Your task to perform on an android device: set the stopwatch Image 0: 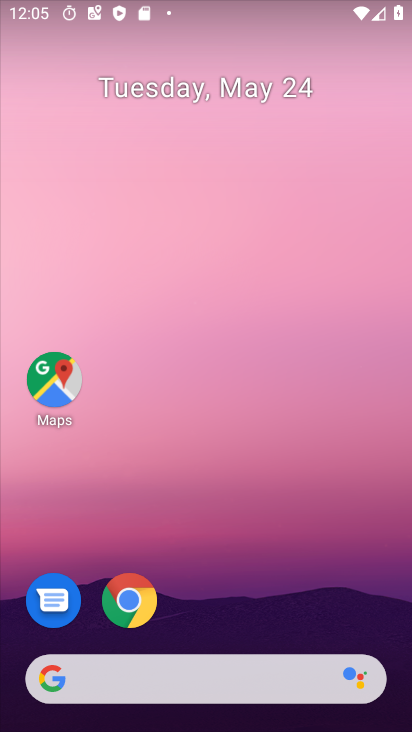
Step 0: drag from (275, 238) to (291, 128)
Your task to perform on an android device: set the stopwatch Image 1: 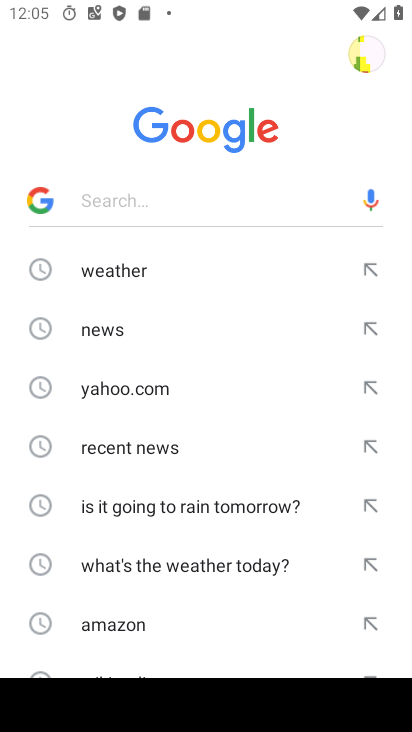
Step 1: press home button
Your task to perform on an android device: set the stopwatch Image 2: 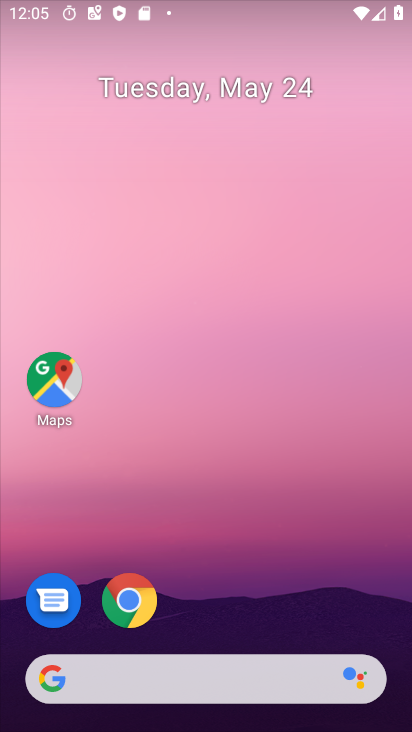
Step 2: drag from (290, 562) to (287, 202)
Your task to perform on an android device: set the stopwatch Image 3: 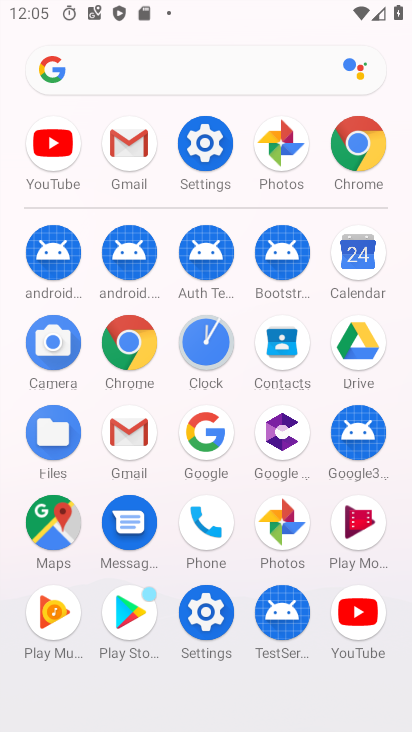
Step 3: click (193, 355)
Your task to perform on an android device: set the stopwatch Image 4: 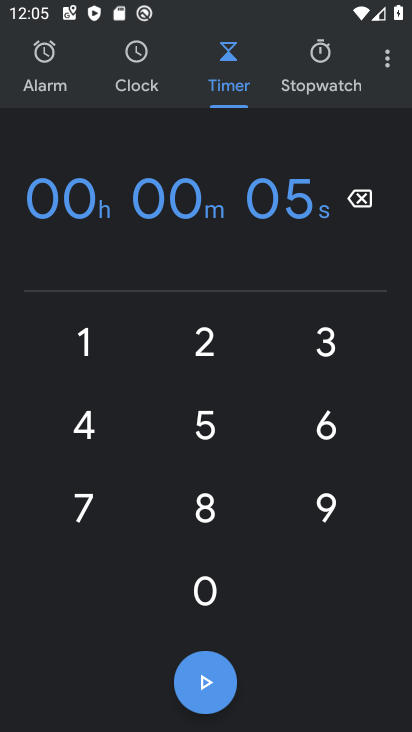
Step 4: click (301, 63)
Your task to perform on an android device: set the stopwatch Image 5: 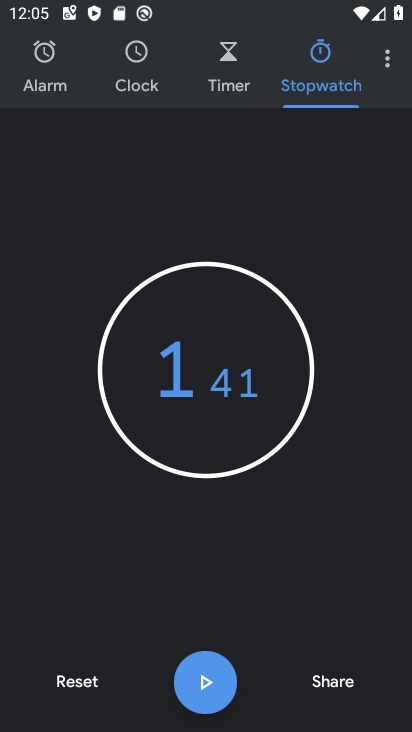
Step 5: task complete